Your task to perform on an android device: turn on javascript in the chrome app Image 0: 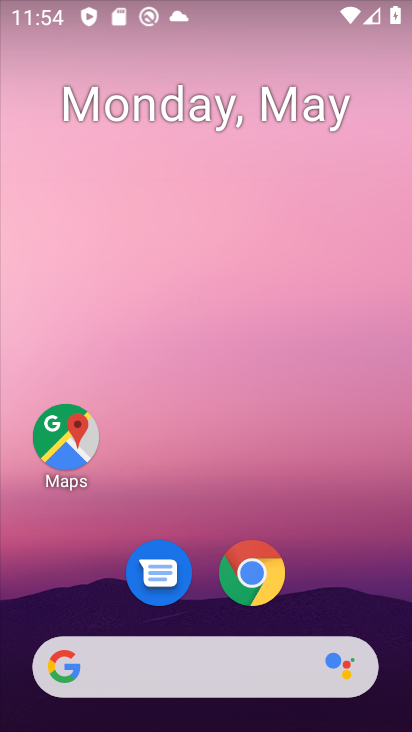
Step 0: drag from (379, 573) to (351, 101)
Your task to perform on an android device: turn on javascript in the chrome app Image 1: 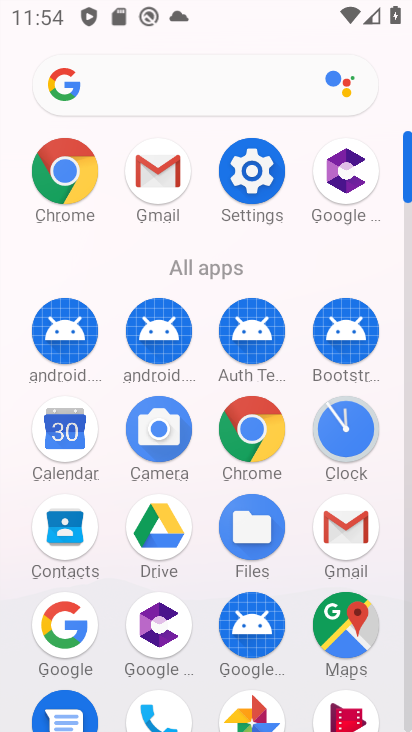
Step 1: click (66, 157)
Your task to perform on an android device: turn on javascript in the chrome app Image 2: 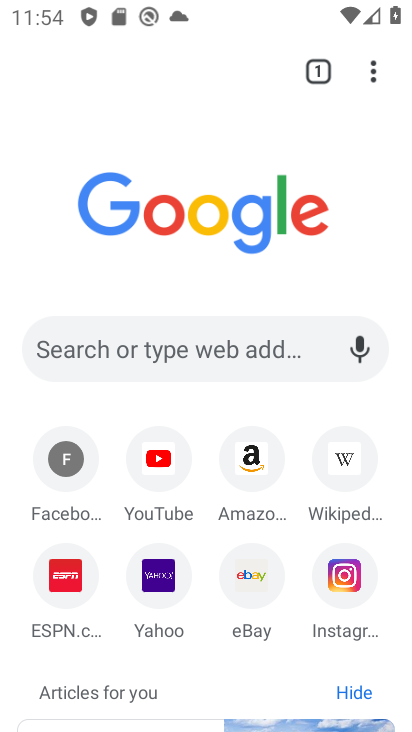
Step 2: click (373, 73)
Your task to perform on an android device: turn on javascript in the chrome app Image 3: 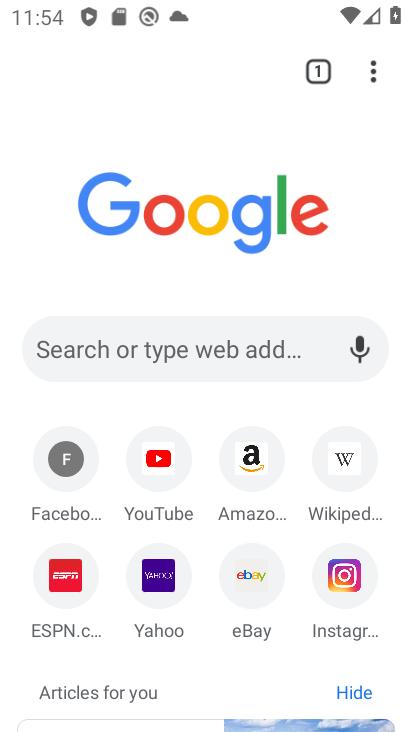
Step 3: drag from (373, 73) to (156, 599)
Your task to perform on an android device: turn on javascript in the chrome app Image 4: 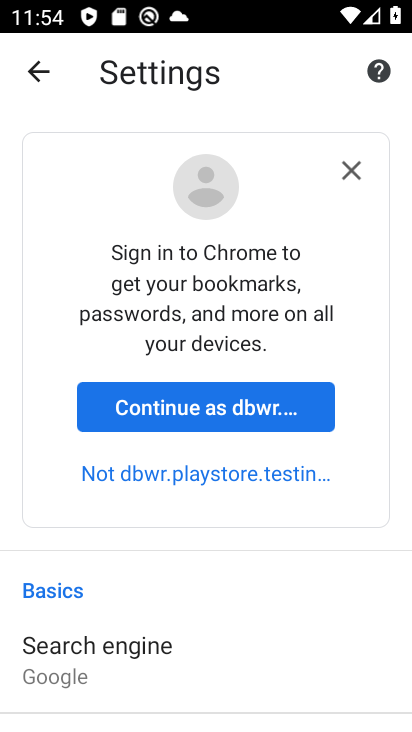
Step 4: drag from (203, 651) to (233, 247)
Your task to perform on an android device: turn on javascript in the chrome app Image 5: 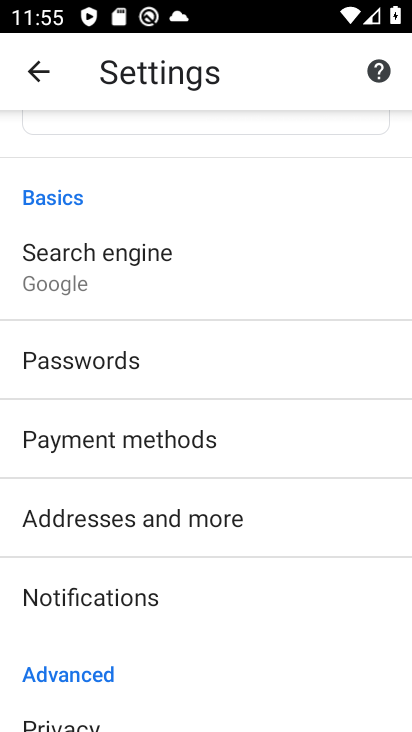
Step 5: drag from (222, 642) to (239, 254)
Your task to perform on an android device: turn on javascript in the chrome app Image 6: 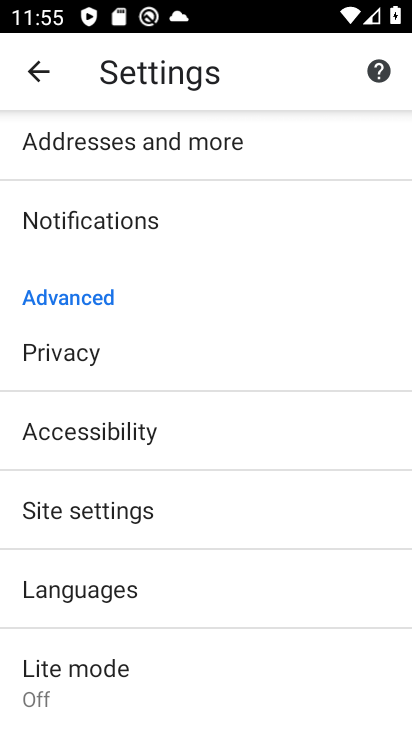
Step 6: drag from (226, 631) to (272, 235)
Your task to perform on an android device: turn on javascript in the chrome app Image 7: 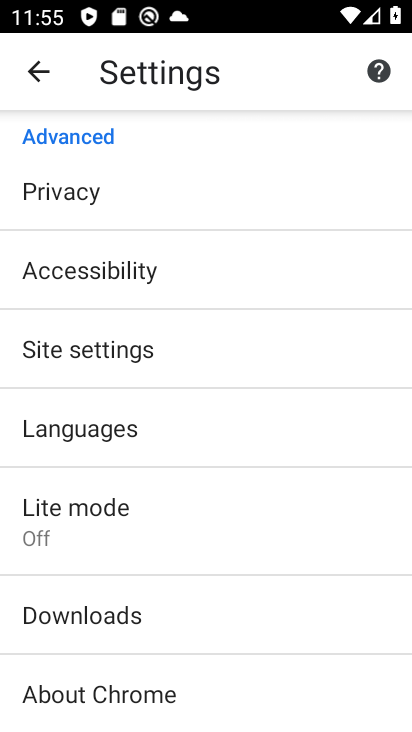
Step 7: click (127, 332)
Your task to perform on an android device: turn on javascript in the chrome app Image 8: 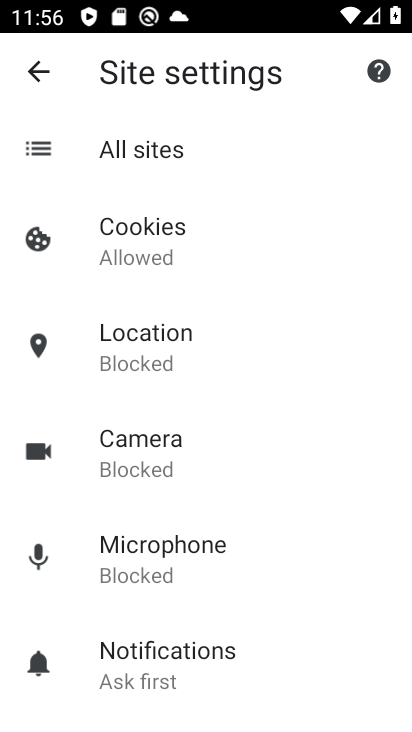
Step 8: drag from (217, 644) to (273, 281)
Your task to perform on an android device: turn on javascript in the chrome app Image 9: 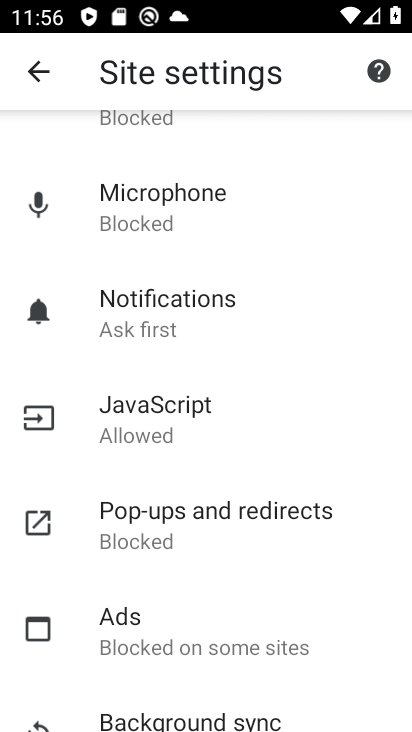
Step 9: click (158, 429)
Your task to perform on an android device: turn on javascript in the chrome app Image 10: 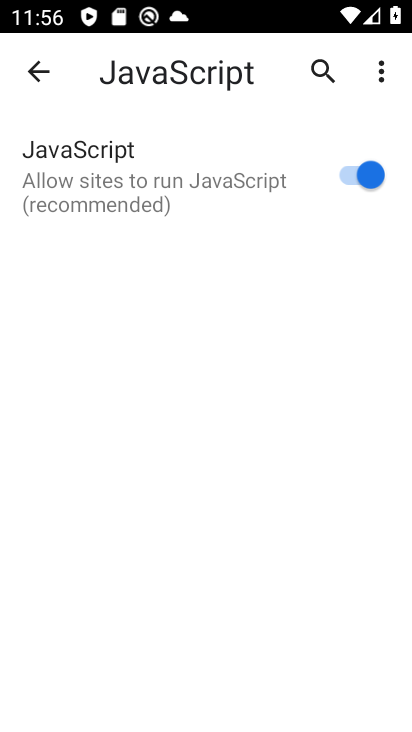
Step 10: task complete